Your task to perform on an android device: Go to Reddit.com Image 0: 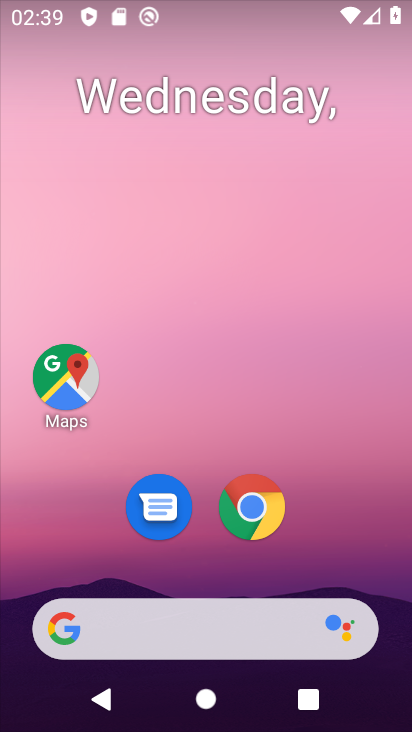
Step 0: drag from (329, 504) to (409, 353)
Your task to perform on an android device: Go to Reddit.com Image 1: 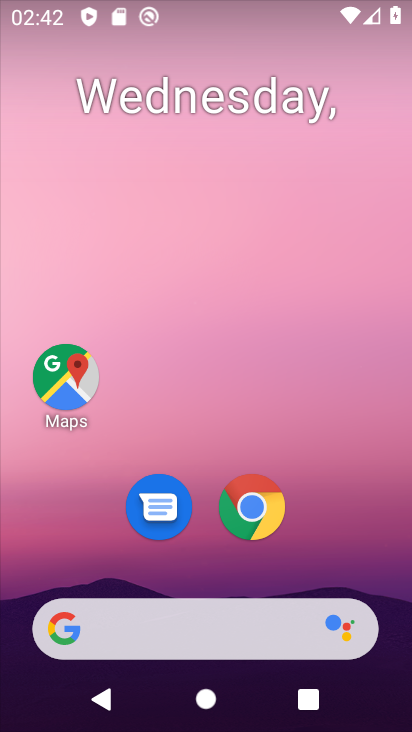
Step 1: click (257, 520)
Your task to perform on an android device: Go to Reddit.com Image 2: 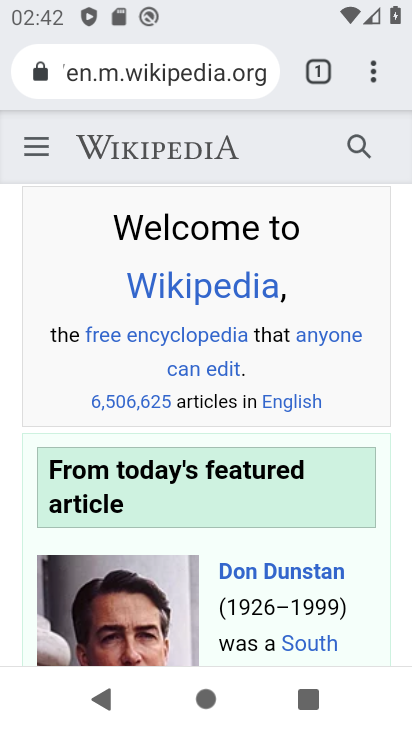
Step 2: click (111, 89)
Your task to perform on an android device: Go to Reddit.com Image 3: 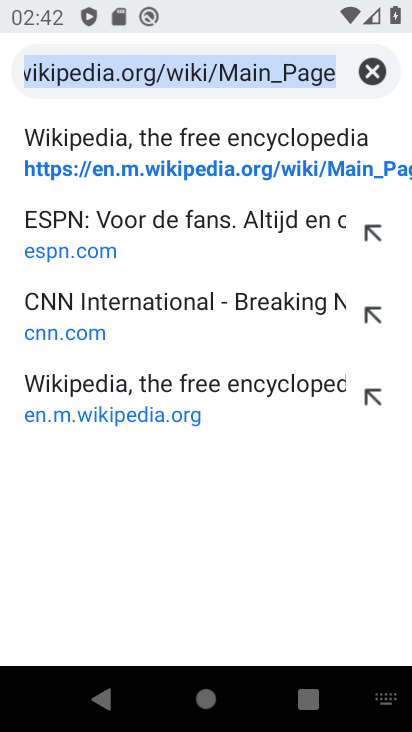
Step 3: type "reddit"
Your task to perform on an android device: Go to Reddit.com Image 4: 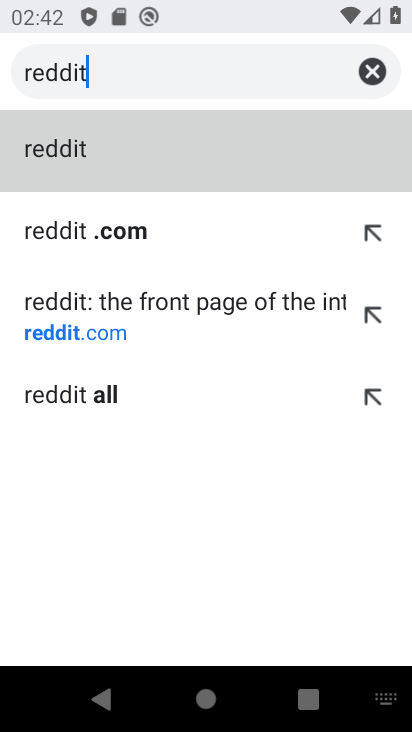
Step 4: click (149, 290)
Your task to perform on an android device: Go to Reddit.com Image 5: 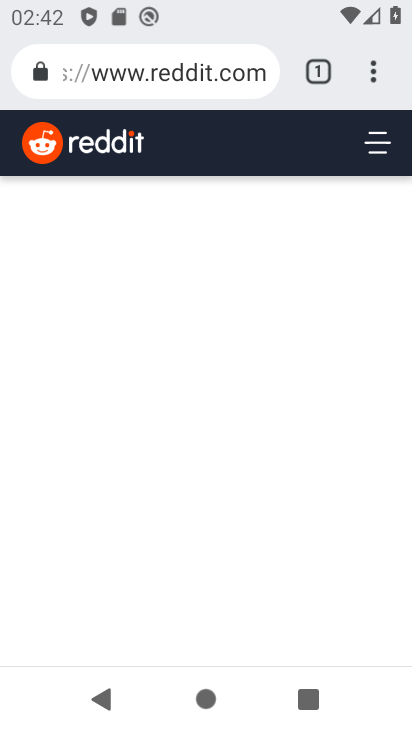
Step 5: task complete